Your task to perform on an android device: clear history in the chrome app Image 0: 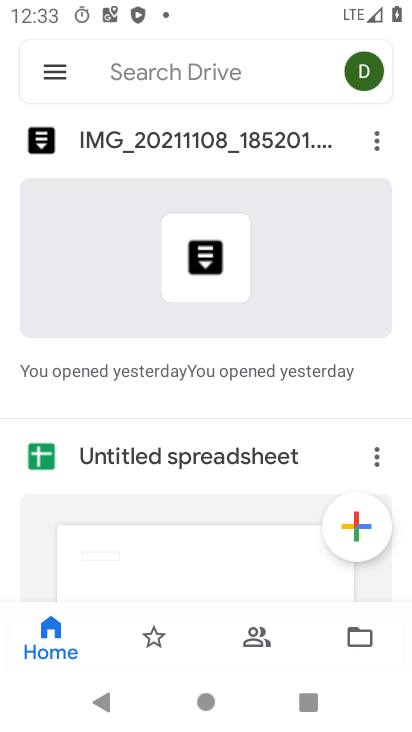
Step 0: press home button
Your task to perform on an android device: clear history in the chrome app Image 1: 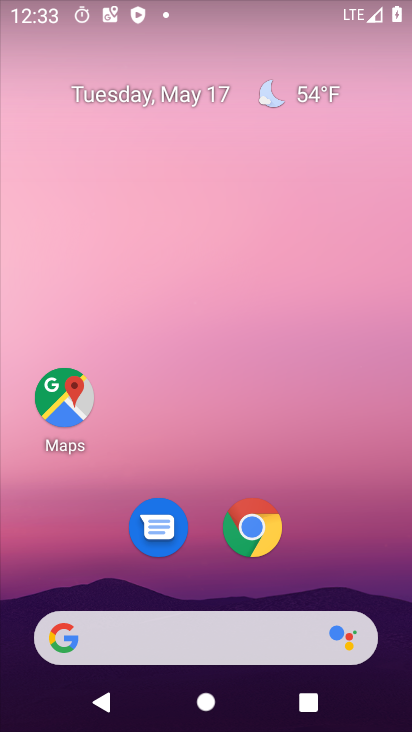
Step 1: drag from (235, 664) to (268, 216)
Your task to perform on an android device: clear history in the chrome app Image 2: 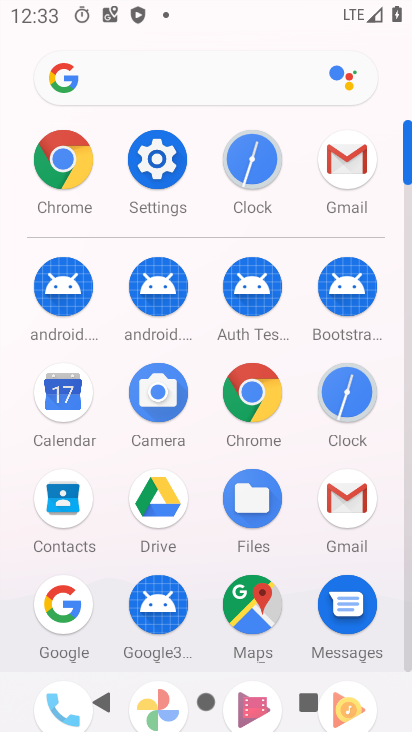
Step 2: click (68, 166)
Your task to perform on an android device: clear history in the chrome app Image 3: 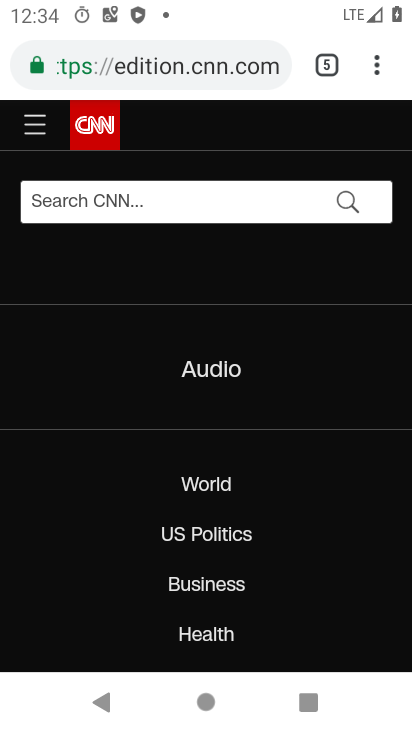
Step 3: click (366, 67)
Your task to perform on an android device: clear history in the chrome app Image 4: 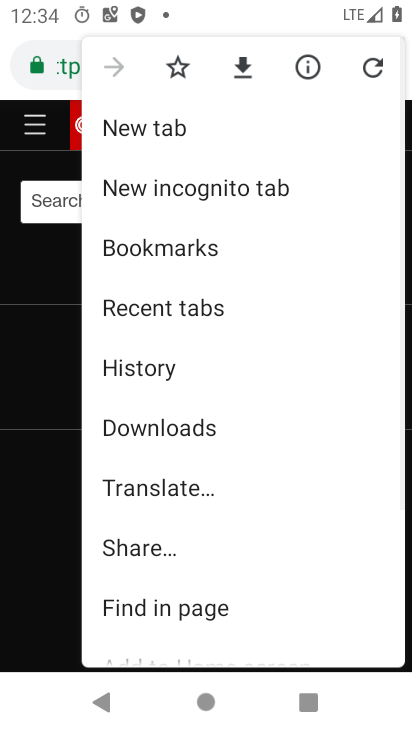
Step 4: drag from (224, 587) to (277, 176)
Your task to perform on an android device: clear history in the chrome app Image 5: 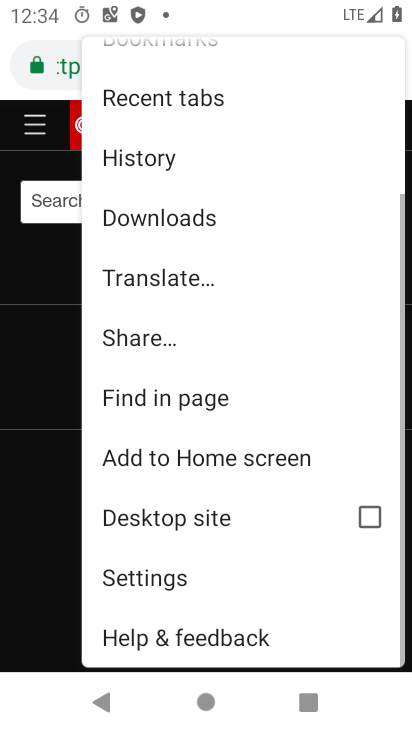
Step 5: click (140, 588)
Your task to perform on an android device: clear history in the chrome app Image 6: 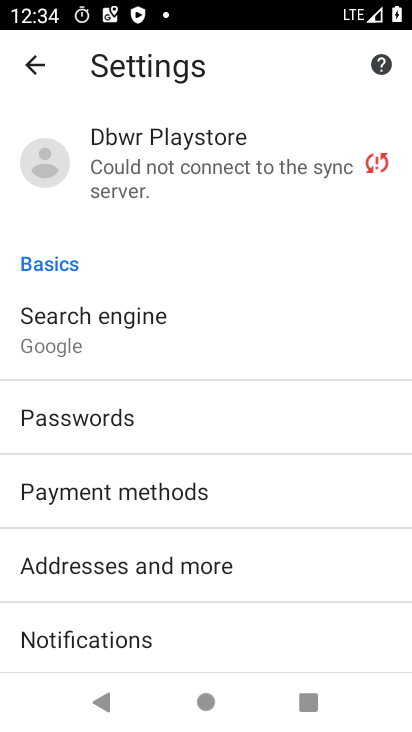
Step 6: drag from (140, 588) to (231, 309)
Your task to perform on an android device: clear history in the chrome app Image 7: 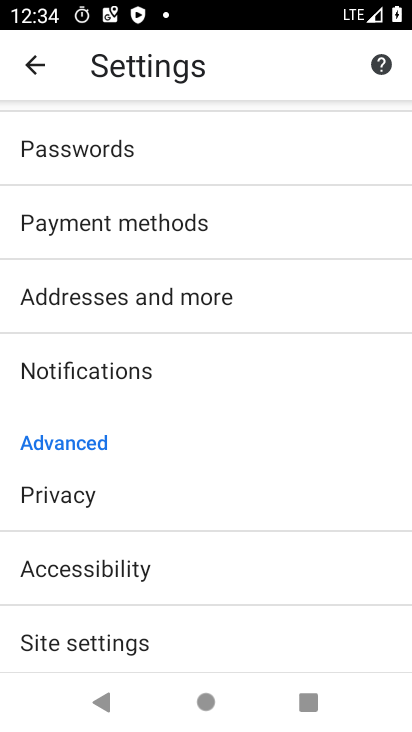
Step 7: drag from (116, 594) to (193, 435)
Your task to perform on an android device: clear history in the chrome app Image 8: 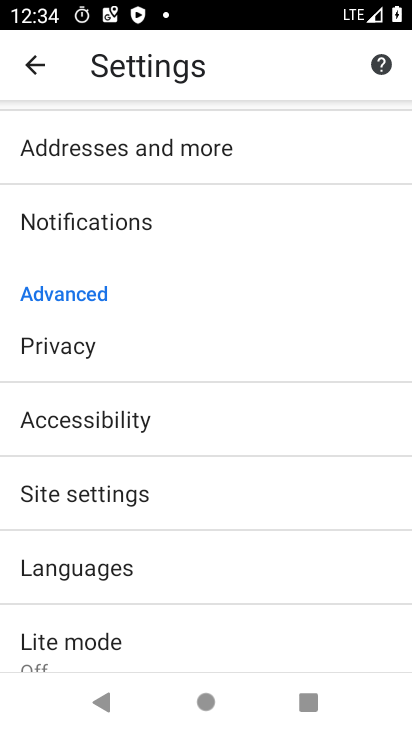
Step 8: drag from (102, 583) to (182, 391)
Your task to perform on an android device: clear history in the chrome app Image 9: 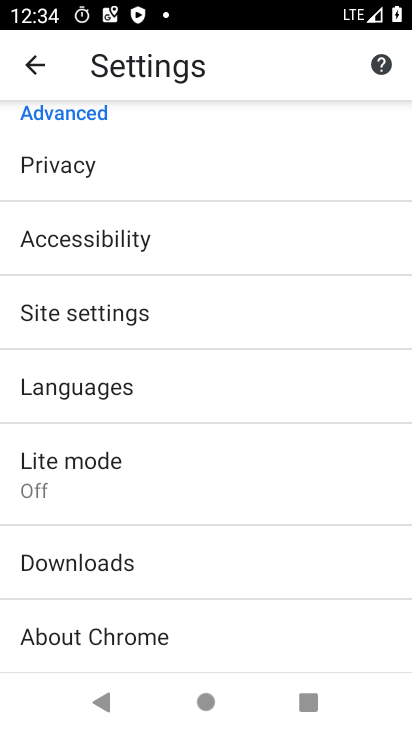
Step 9: click (105, 146)
Your task to perform on an android device: clear history in the chrome app Image 10: 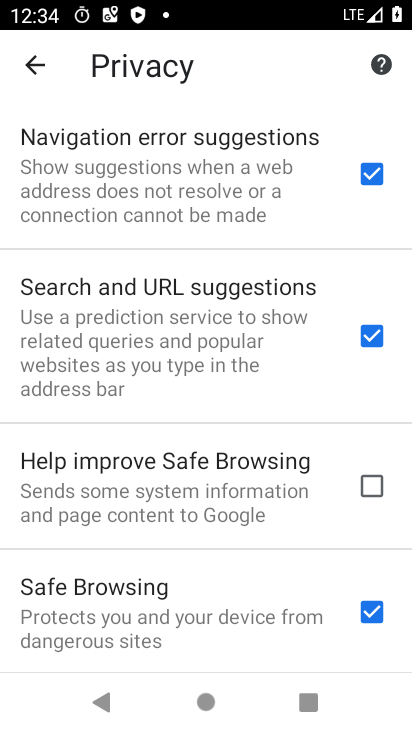
Step 10: drag from (179, 280) to (249, 104)
Your task to perform on an android device: clear history in the chrome app Image 11: 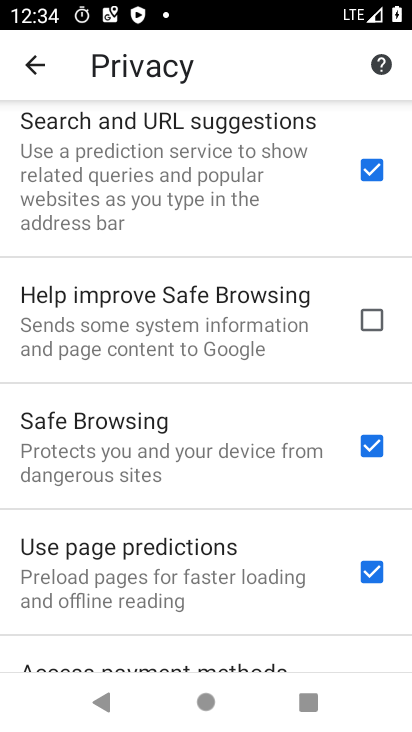
Step 11: drag from (64, 544) to (184, 264)
Your task to perform on an android device: clear history in the chrome app Image 12: 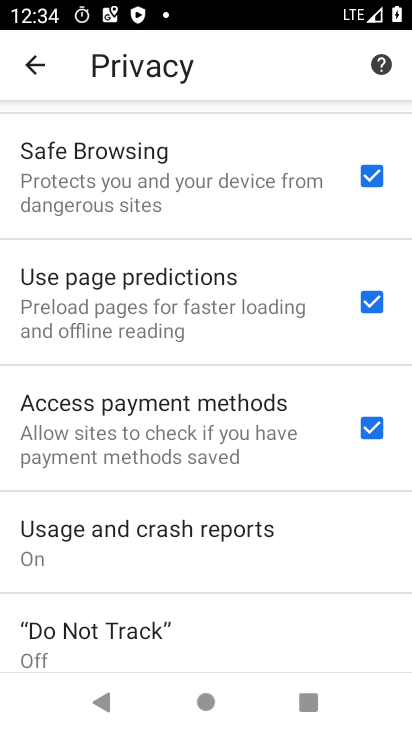
Step 12: drag from (112, 533) to (198, 321)
Your task to perform on an android device: clear history in the chrome app Image 13: 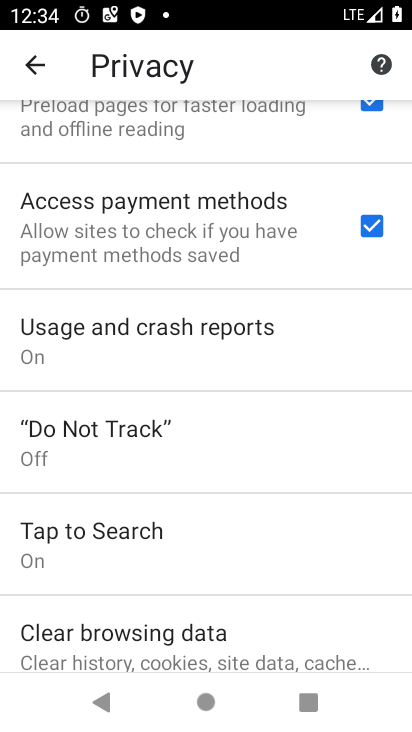
Step 13: click (107, 619)
Your task to perform on an android device: clear history in the chrome app Image 14: 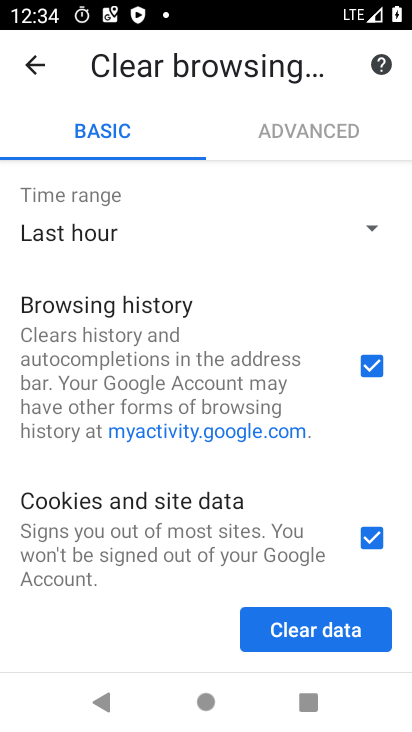
Step 14: click (270, 633)
Your task to perform on an android device: clear history in the chrome app Image 15: 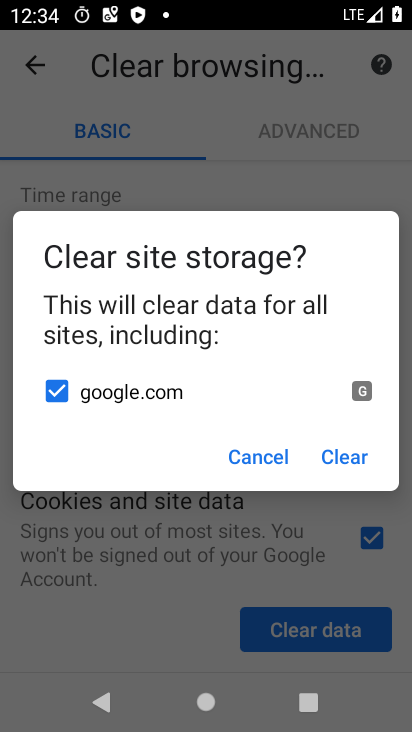
Step 15: task complete